Your task to perform on an android device: turn off airplane mode Image 0: 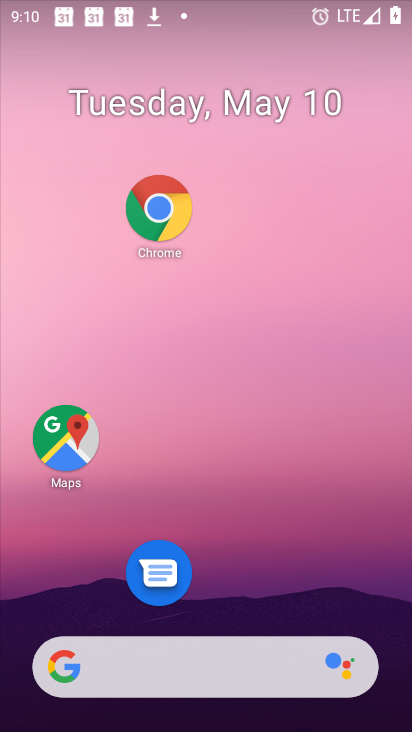
Step 0: drag from (276, 679) to (275, 232)
Your task to perform on an android device: turn off airplane mode Image 1: 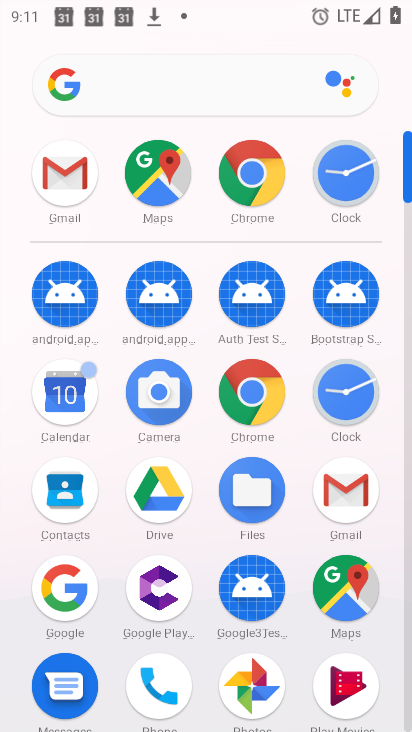
Step 1: drag from (195, 550) to (173, 363)
Your task to perform on an android device: turn off airplane mode Image 2: 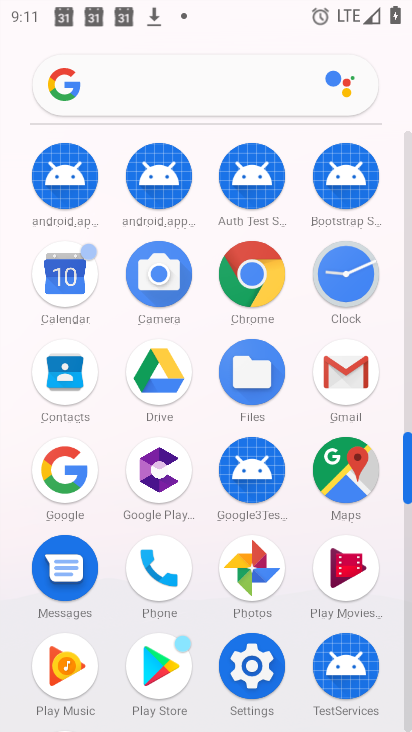
Step 2: click (237, 660)
Your task to perform on an android device: turn off airplane mode Image 3: 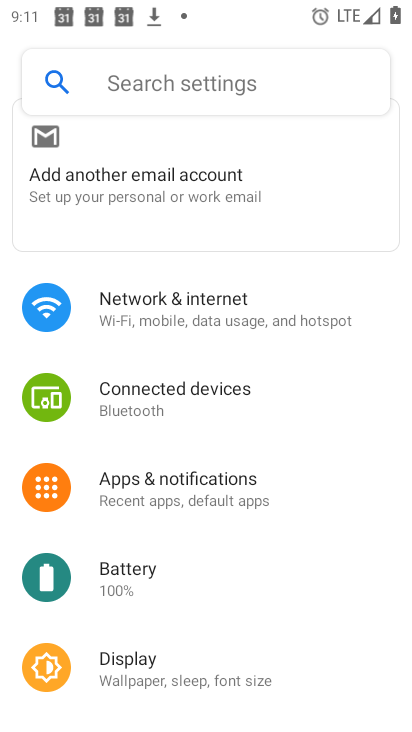
Step 3: click (220, 296)
Your task to perform on an android device: turn off airplane mode Image 4: 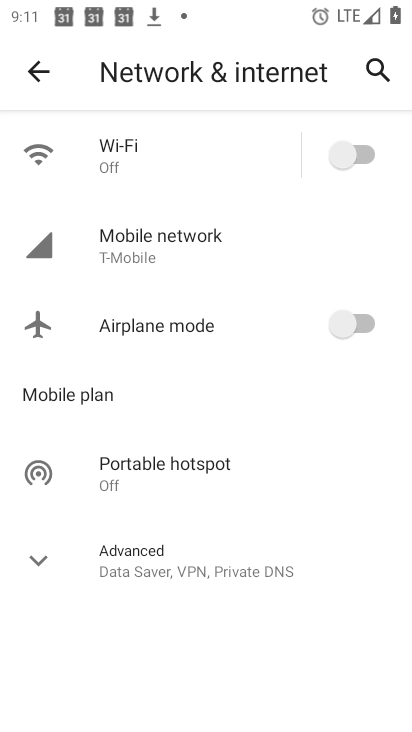
Step 4: click (200, 318)
Your task to perform on an android device: turn off airplane mode Image 5: 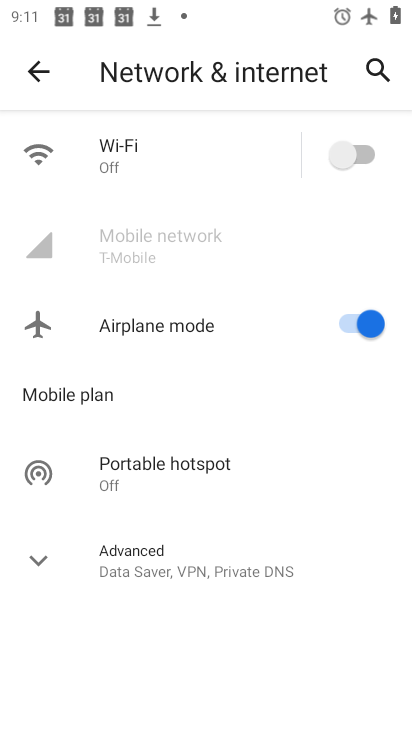
Step 5: task complete